Your task to perform on an android device: Show me recent news Image 0: 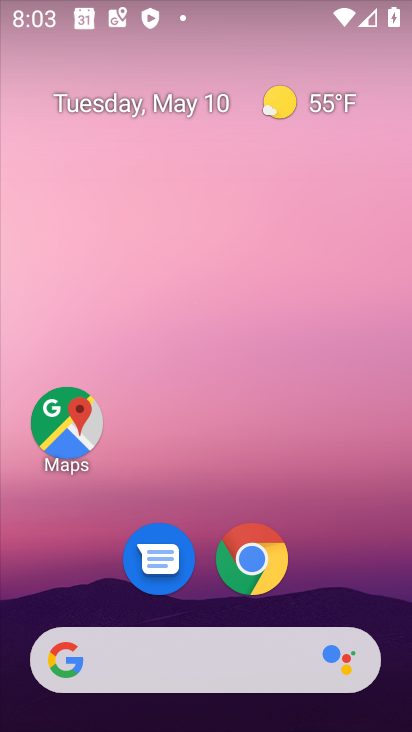
Step 0: drag from (5, 297) to (385, 253)
Your task to perform on an android device: Show me recent news Image 1: 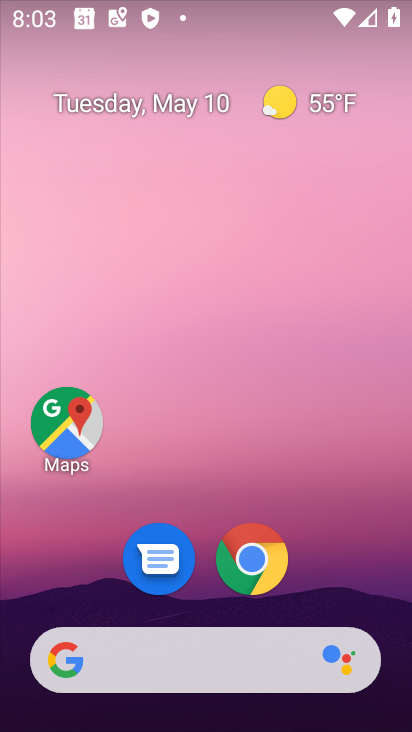
Step 1: task complete